Your task to perform on an android device: change your default location settings in chrome Image 0: 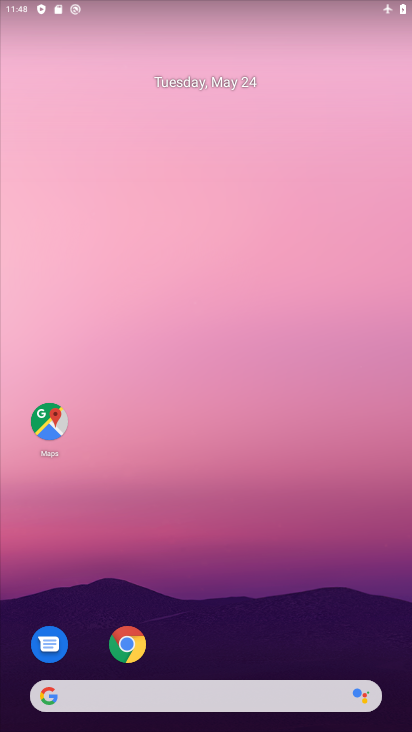
Step 0: click (125, 644)
Your task to perform on an android device: change your default location settings in chrome Image 1: 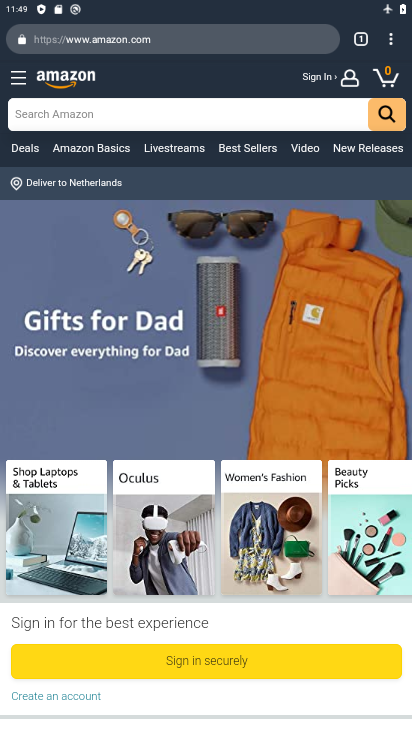
Step 1: click (390, 40)
Your task to perform on an android device: change your default location settings in chrome Image 2: 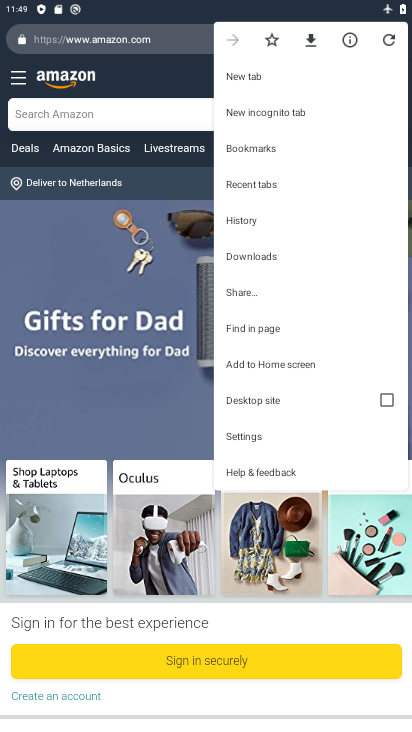
Step 2: drag from (61, 439) to (265, 355)
Your task to perform on an android device: change your default location settings in chrome Image 3: 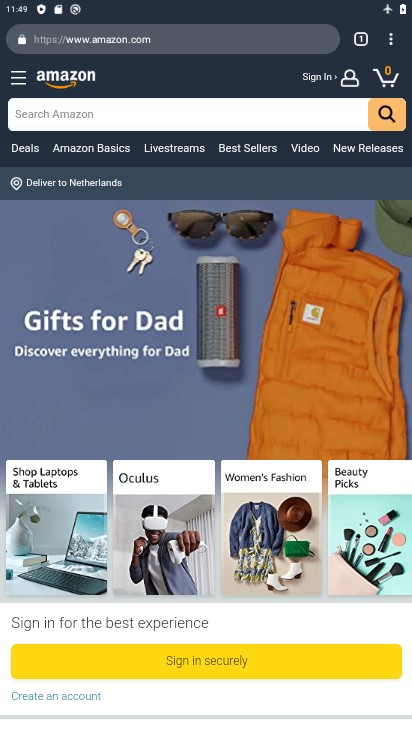
Step 3: click (394, 45)
Your task to perform on an android device: change your default location settings in chrome Image 4: 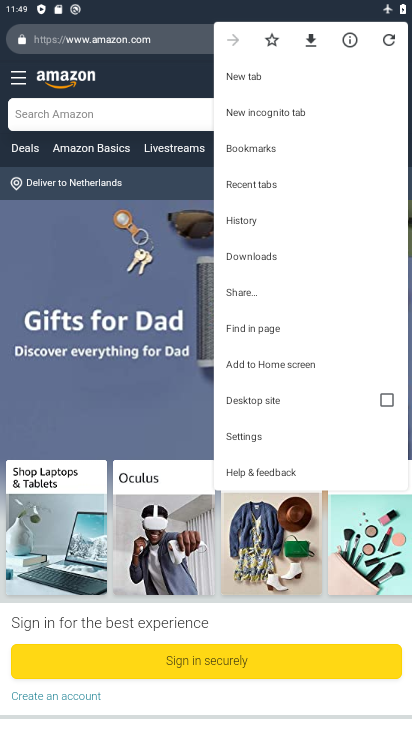
Step 4: click (240, 436)
Your task to perform on an android device: change your default location settings in chrome Image 5: 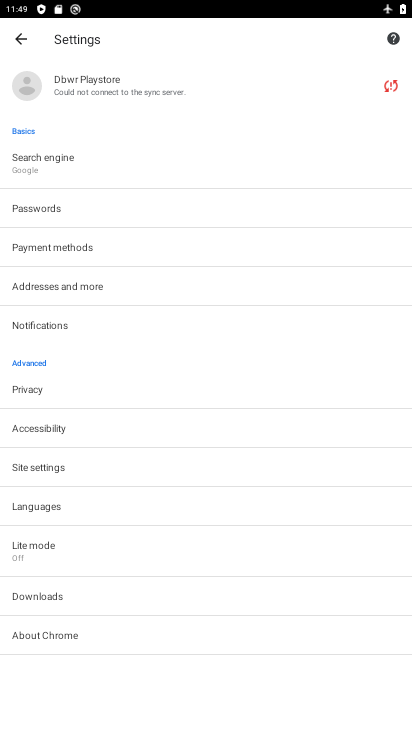
Step 5: click (42, 467)
Your task to perform on an android device: change your default location settings in chrome Image 6: 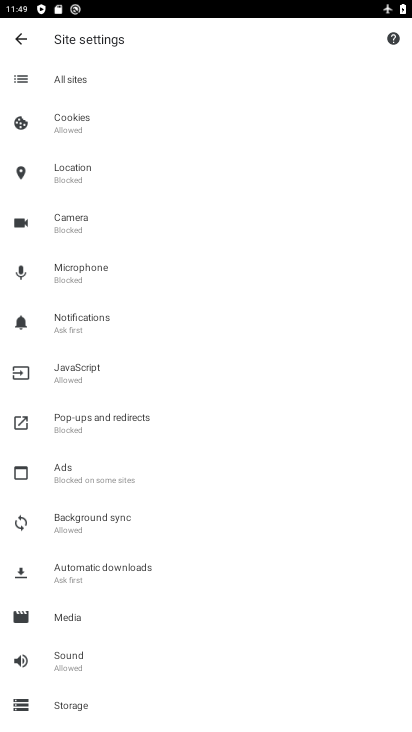
Step 6: click (78, 166)
Your task to perform on an android device: change your default location settings in chrome Image 7: 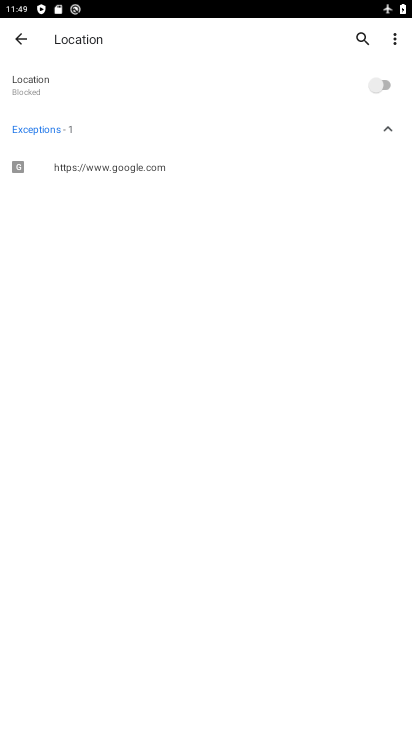
Step 7: click (370, 88)
Your task to perform on an android device: change your default location settings in chrome Image 8: 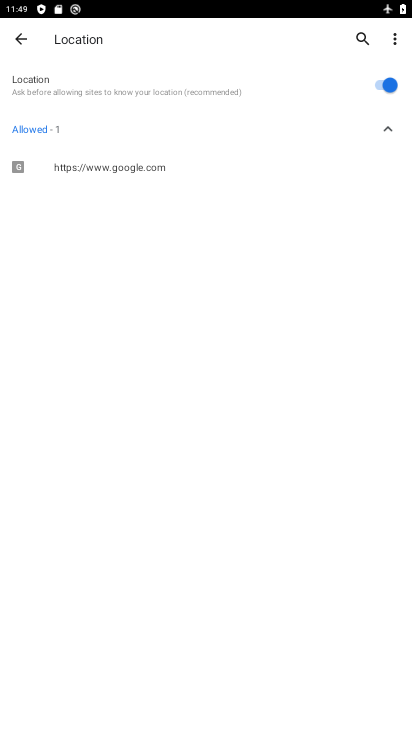
Step 8: task complete